Your task to perform on an android device: change the clock display to show seconds Image 0: 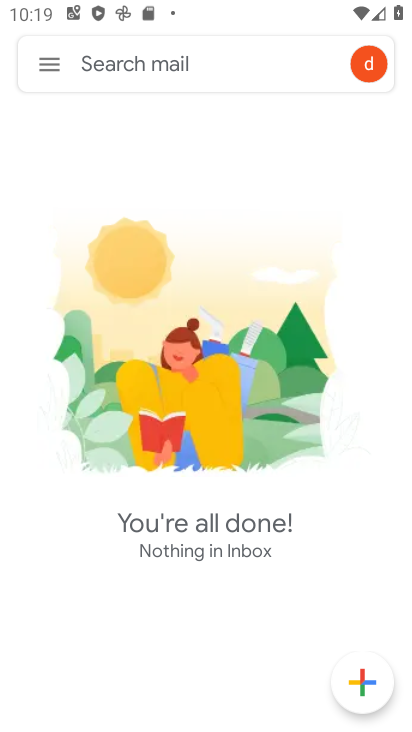
Step 0: press home button
Your task to perform on an android device: change the clock display to show seconds Image 1: 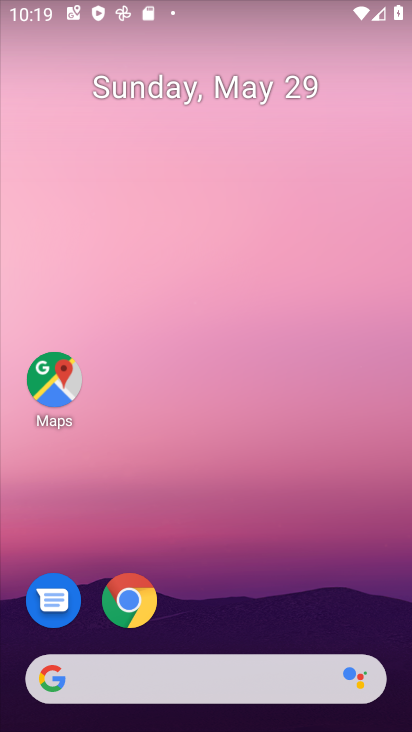
Step 1: drag from (216, 725) to (208, 52)
Your task to perform on an android device: change the clock display to show seconds Image 2: 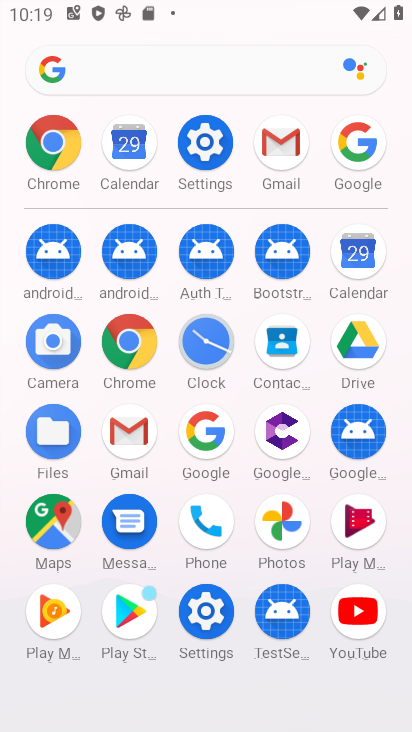
Step 2: click (205, 344)
Your task to perform on an android device: change the clock display to show seconds Image 3: 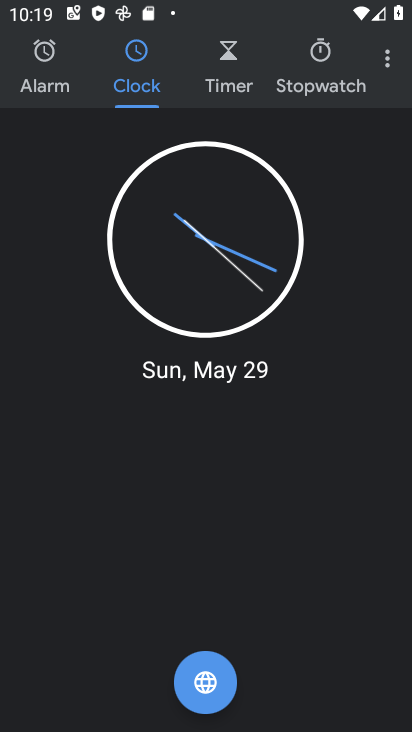
Step 3: click (387, 69)
Your task to perform on an android device: change the clock display to show seconds Image 4: 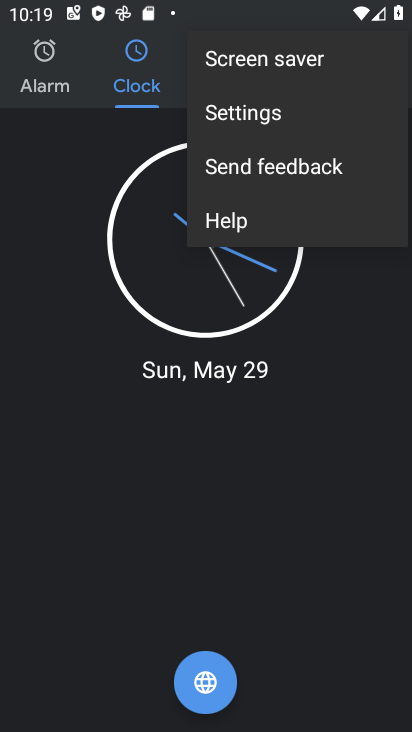
Step 4: click (256, 113)
Your task to perform on an android device: change the clock display to show seconds Image 5: 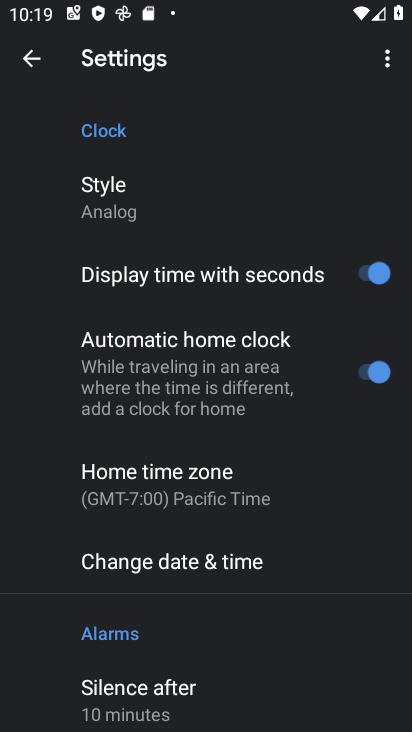
Step 5: task complete